Your task to perform on an android device: turn notification dots on Image 0: 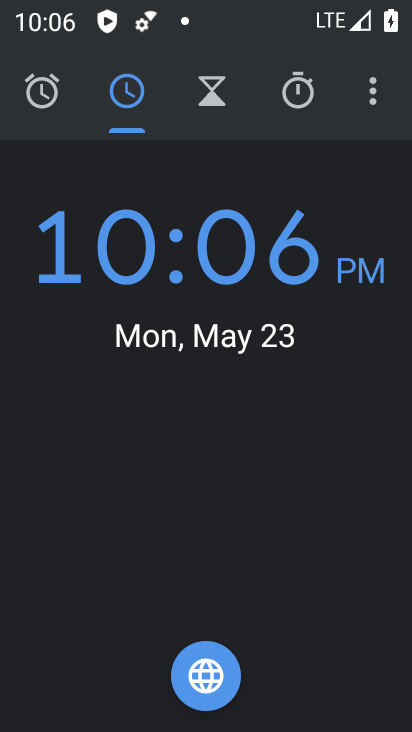
Step 0: press home button
Your task to perform on an android device: turn notification dots on Image 1: 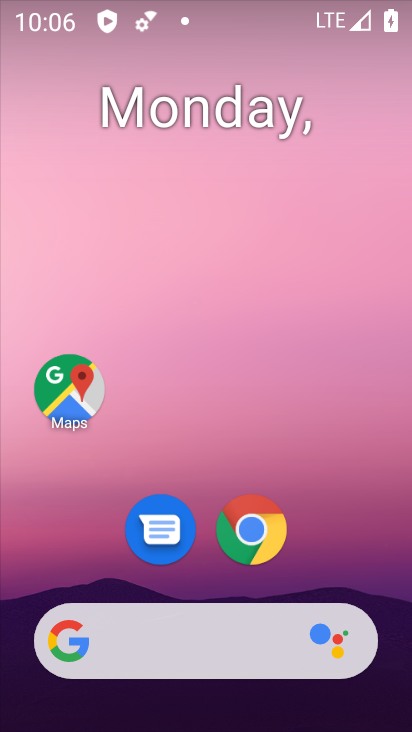
Step 1: drag from (11, 582) to (294, 141)
Your task to perform on an android device: turn notification dots on Image 2: 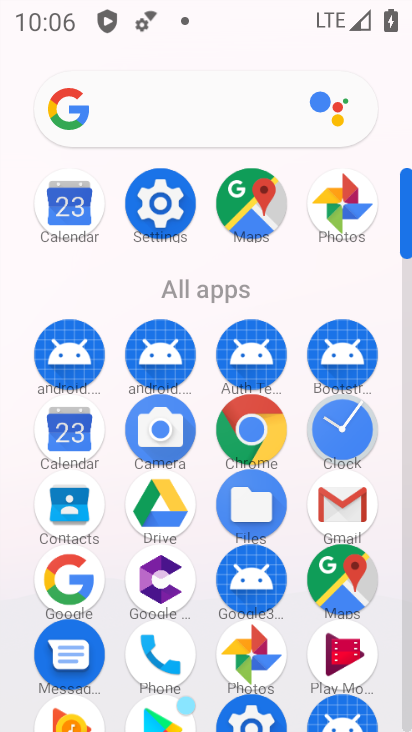
Step 2: click (145, 217)
Your task to perform on an android device: turn notification dots on Image 3: 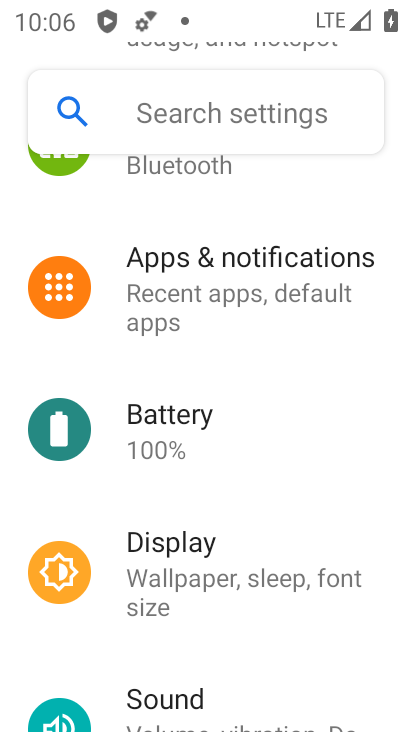
Step 3: click (202, 266)
Your task to perform on an android device: turn notification dots on Image 4: 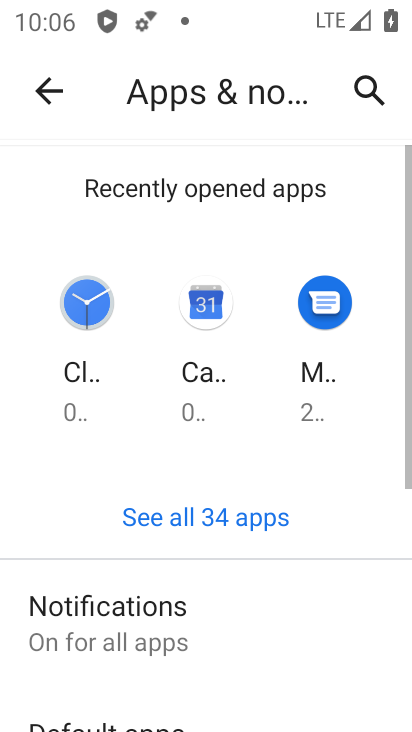
Step 4: click (102, 619)
Your task to perform on an android device: turn notification dots on Image 5: 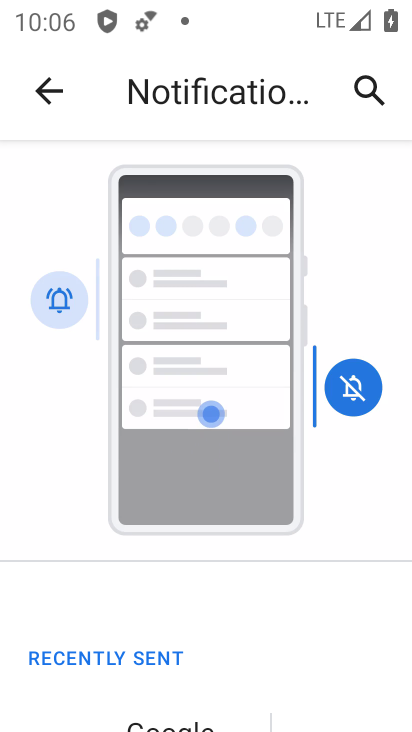
Step 5: drag from (32, 515) to (222, 103)
Your task to perform on an android device: turn notification dots on Image 6: 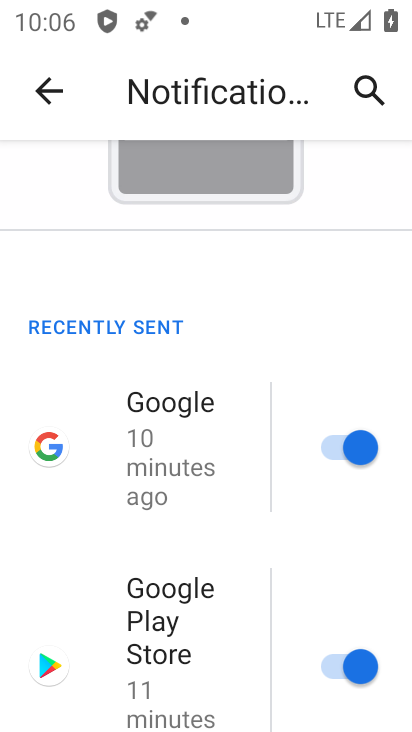
Step 6: drag from (18, 467) to (247, 109)
Your task to perform on an android device: turn notification dots on Image 7: 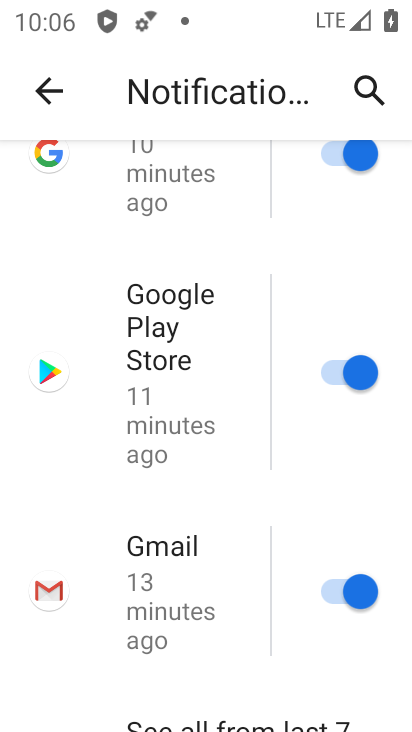
Step 7: drag from (18, 654) to (296, 314)
Your task to perform on an android device: turn notification dots on Image 8: 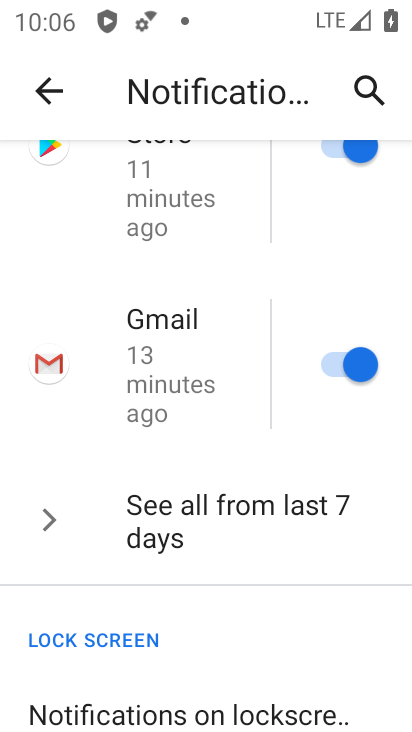
Step 8: drag from (5, 587) to (305, 233)
Your task to perform on an android device: turn notification dots on Image 9: 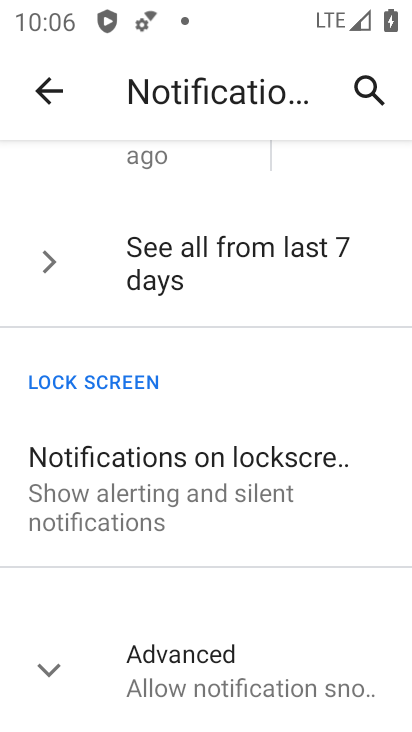
Step 9: click (253, 669)
Your task to perform on an android device: turn notification dots on Image 10: 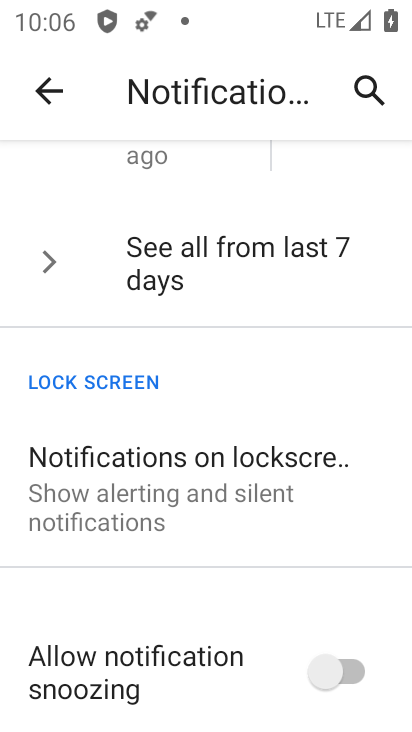
Step 10: task complete